Your task to perform on an android device: turn off sleep mode Image 0: 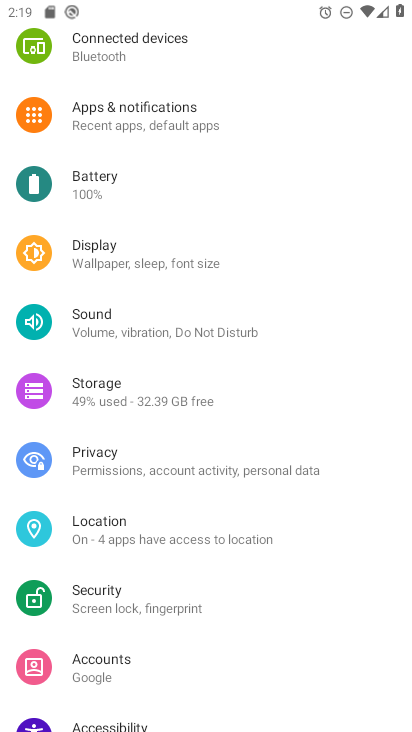
Step 0: drag from (212, 209) to (231, 724)
Your task to perform on an android device: turn off sleep mode Image 1: 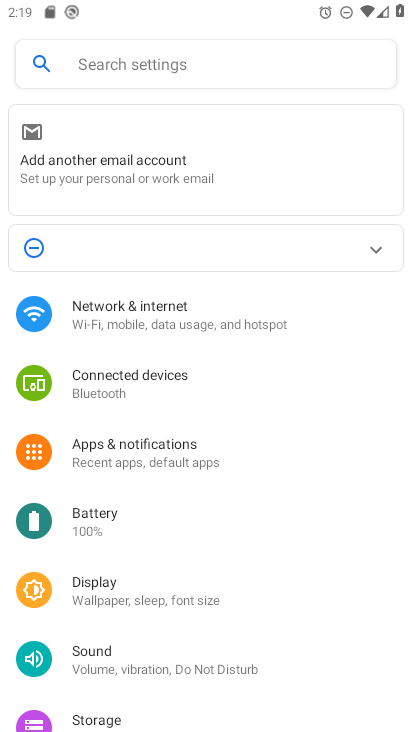
Step 1: click (126, 596)
Your task to perform on an android device: turn off sleep mode Image 2: 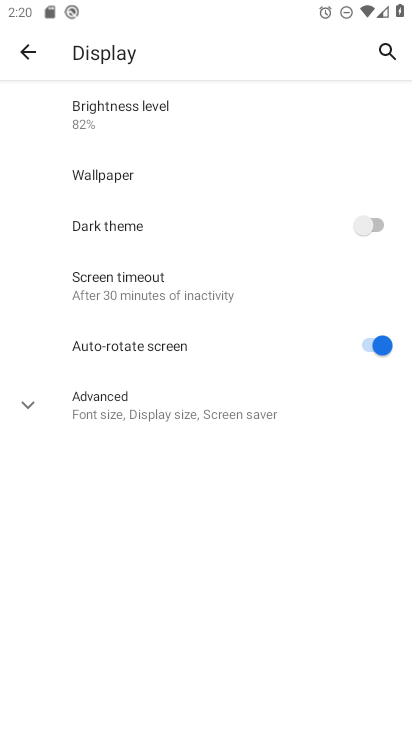
Step 2: task complete